Your task to perform on an android device: search for starred emails in the gmail app Image 0: 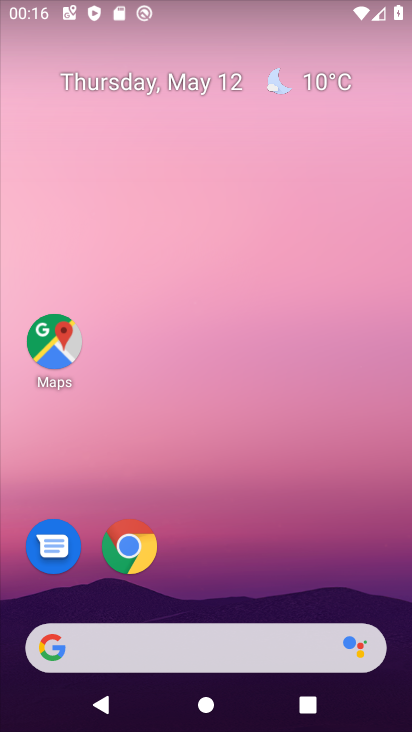
Step 0: drag from (117, 603) to (128, 265)
Your task to perform on an android device: search for starred emails in the gmail app Image 1: 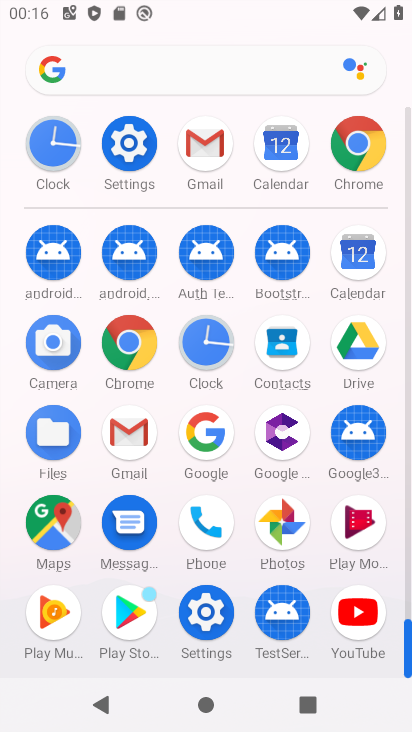
Step 1: click (197, 152)
Your task to perform on an android device: search for starred emails in the gmail app Image 2: 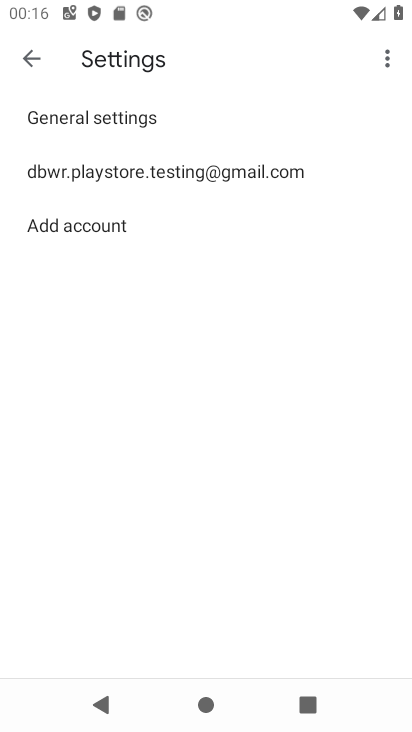
Step 2: click (185, 177)
Your task to perform on an android device: search for starred emails in the gmail app Image 3: 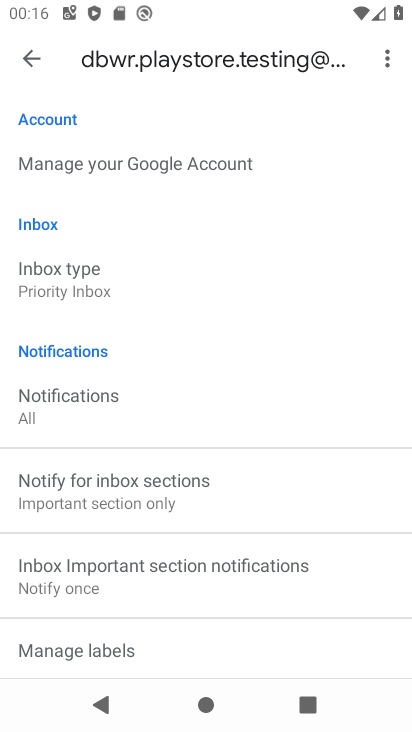
Step 3: click (35, 64)
Your task to perform on an android device: search for starred emails in the gmail app Image 4: 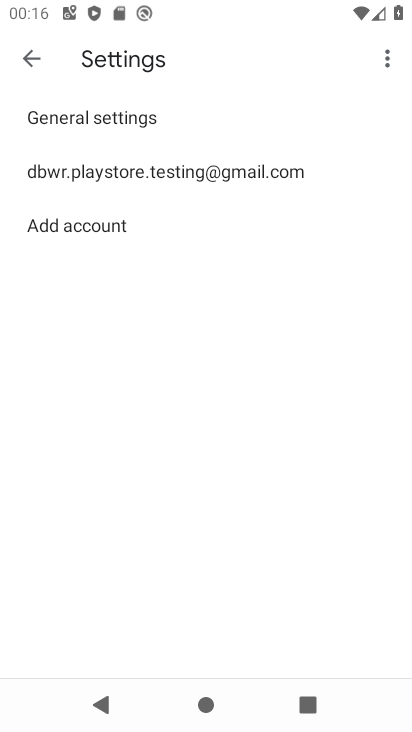
Step 4: click (40, 67)
Your task to perform on an android device: search for starred emails in the gmail app Image 5: 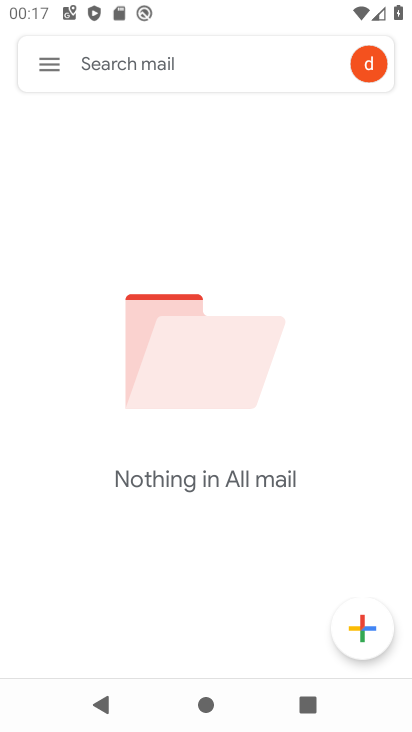
Step 5: click (41, 67)
Your task to perform on an android device: search for starred emails in the gmail app Image 6: 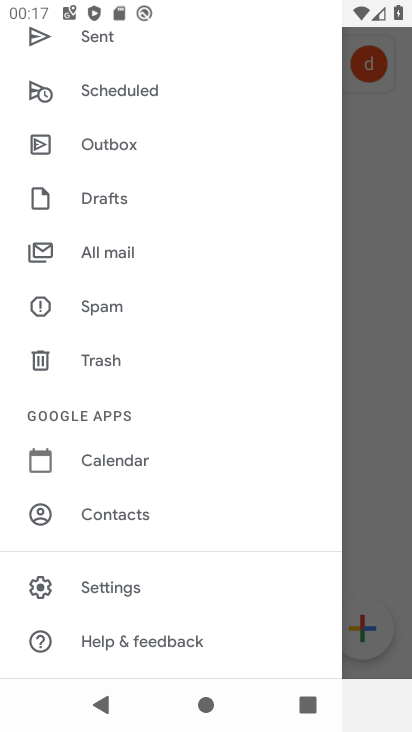
Step 6: drag from (163, 157) to (168, 486)
Your task to perform on an android device: search for starred emails in the gmail app Image 7: 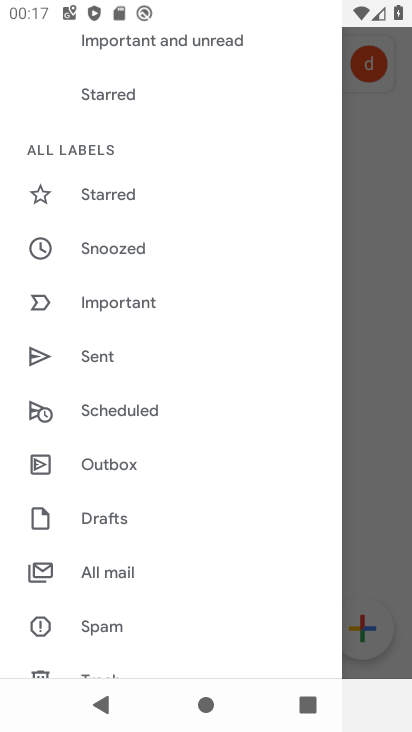
Step 7: click (162, 203)
Your task to perform on an android device: search for starred emails in the gmail app Image 8: 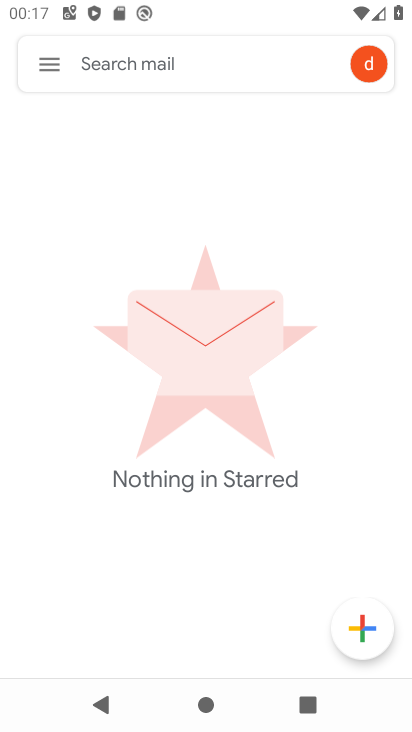
Step 8: task complete